Your task to perform on an android device: Go to Google maps Image 0: 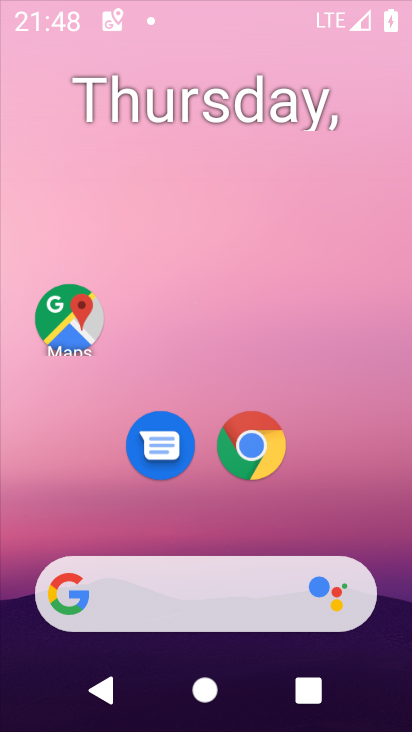
Step 0: click (303, 148)
Your task to perform on an android device: Go to Google maps Image 1: 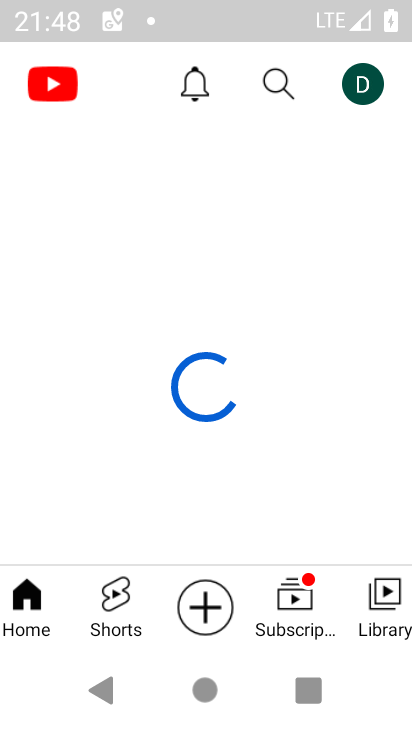
Step 1: drag from (235, 502) to (311, 79)
Your task to perform on an android device: Go to Google maps Image 2: 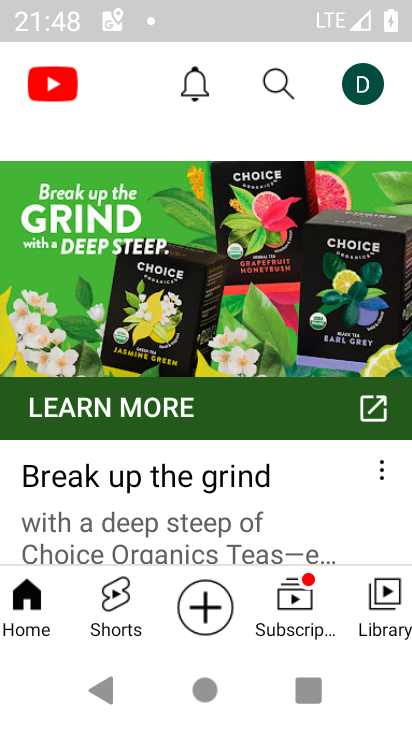
Step 2: drag from (243, 528) to (266, 119)
Your task to perform on an android device: Go to Google maps Image 3: 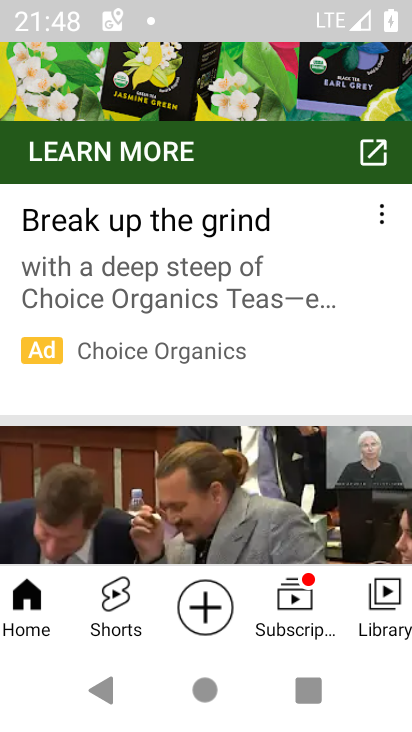
Step 3: drag from (267, 490) to (265, 175)
Your task to perform on an android device: Go to Google maps Image 4: 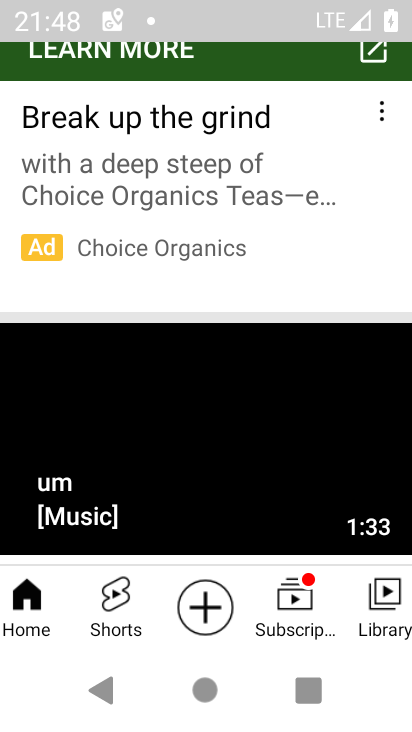
Step 4: drag from (192, 494) to (231, 180)
Your task to perform on an android device: Go to Google maps Image 5: 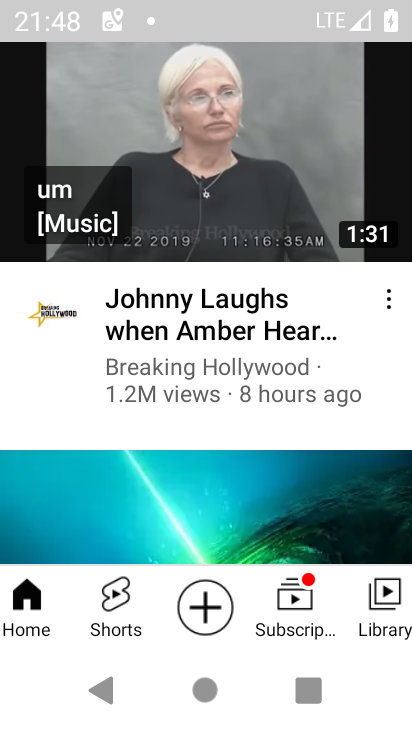
Step 5: drag from (244, 510) to (286, 224)
Your task to perform on an android device: Go to Google maps Image 6: 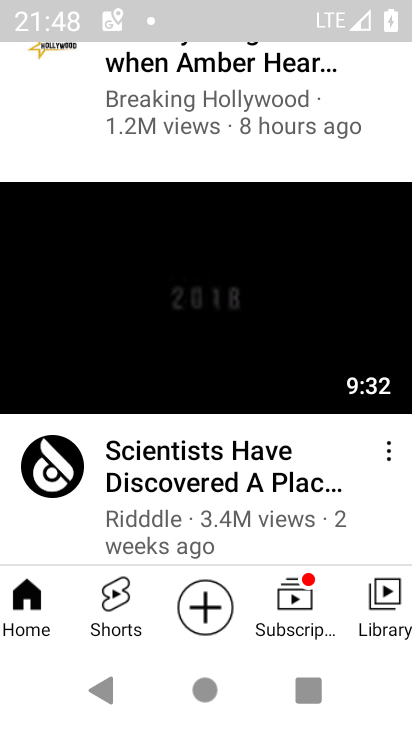
Step 6: drag from (290, 158) to (348, 579)
Your task to perform on an android device: Go to Google maps Image 7: 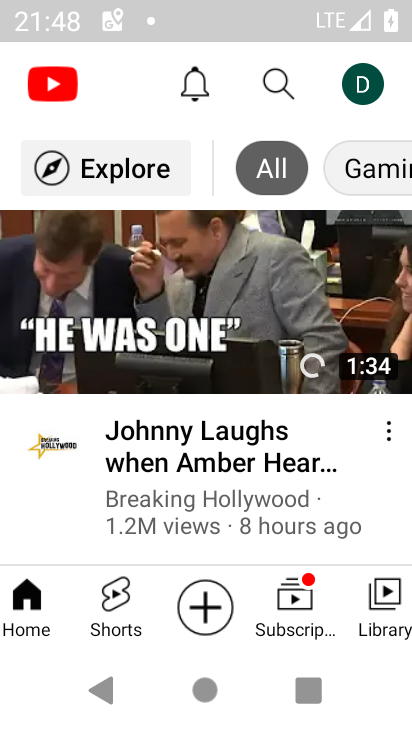
Step 7: drag from (322, 229) to (383, 568)
Your task to perform on an android device: Go to Google maps Image 8: 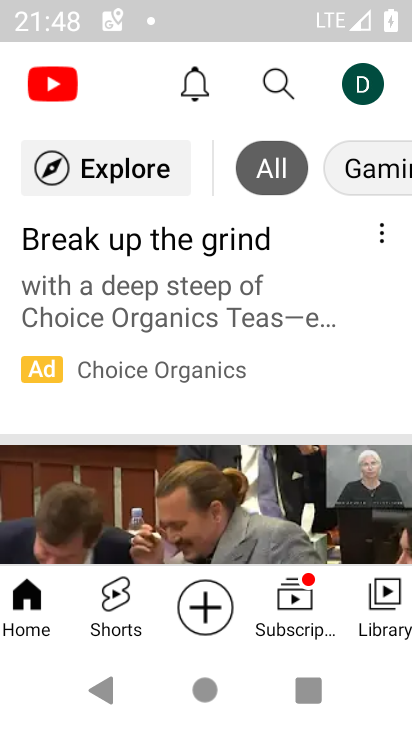
Step 8: press home button
Your task to perform on an android device: Go to Google maps Image 9: 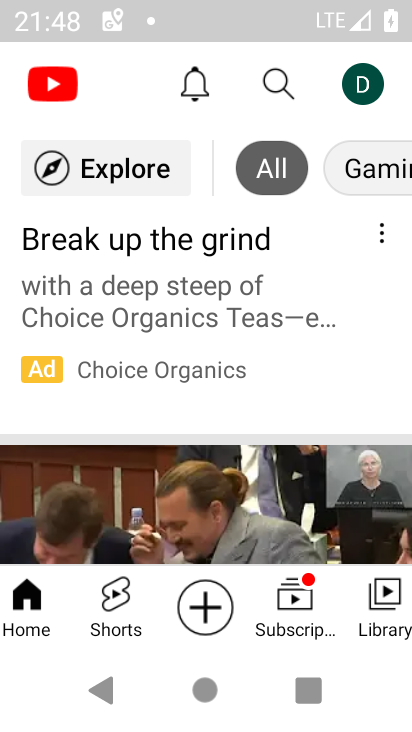
Step 9: press home button
Your task to perform on an android device: Go to Google maps Image 10: 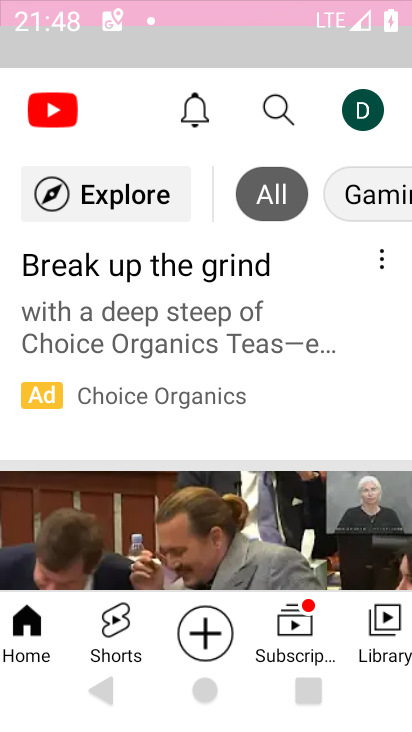
Step 10: drag from (224, 510) to (394, 43)
Your task to perform on an android device: Go to Google maps Image 11: 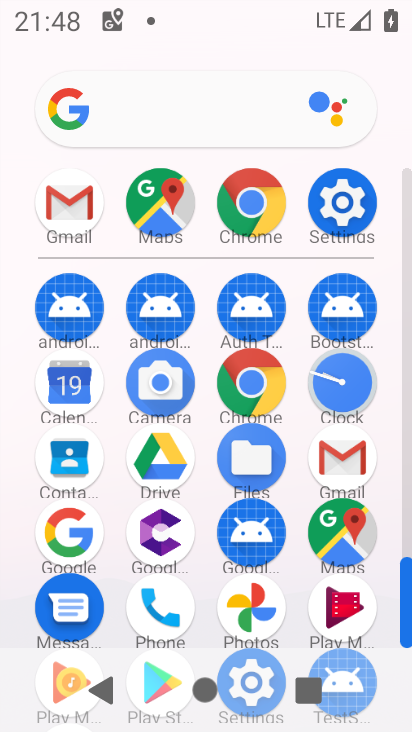
Step 11: click (159, 216)
Your task to perform on an android device: Go to Google maps Image 12: 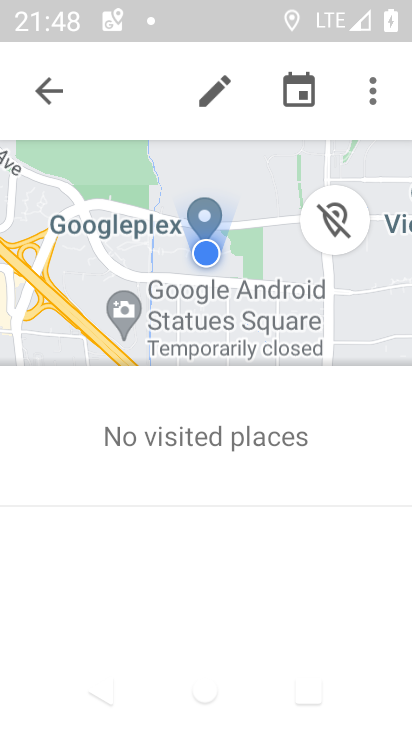
Step 12: drag from (232, 470) to (131, 9)
Your task to perform on an android device: Go to Google maps Image 13: 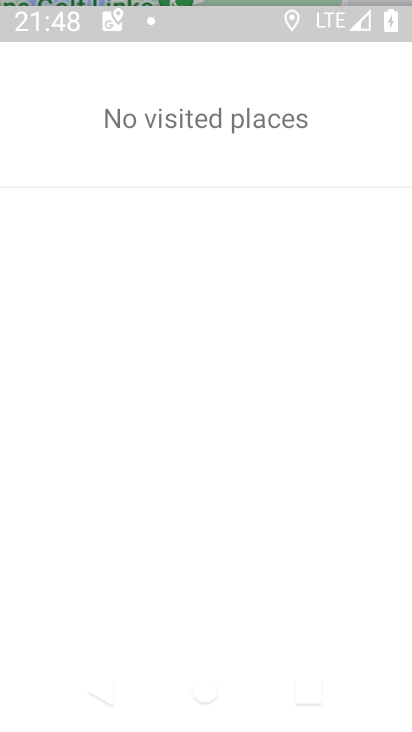
Step 13: click (41, 110)
Your task to perform on an android device: Go to Google maps Image 14: 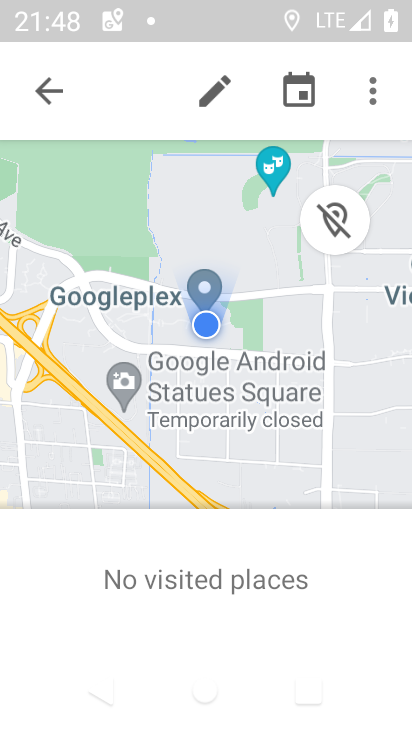
Step 14: click (47, 99)
Your task to perform on an android device: Go to Google maps Image 15: 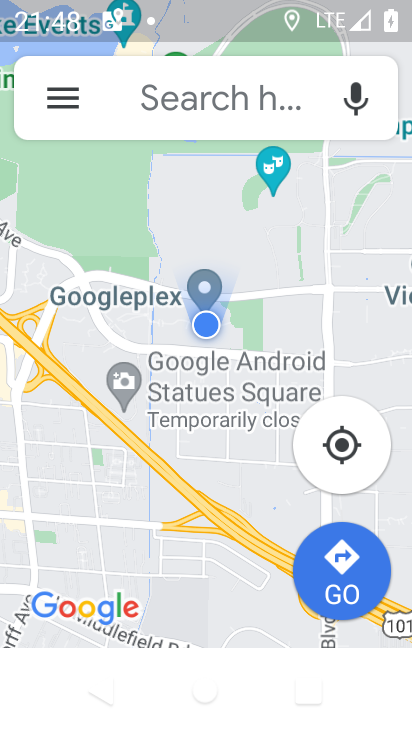
Step 15: task complete